Your task to perform on an android device: Go to ESPN.com Image 0: 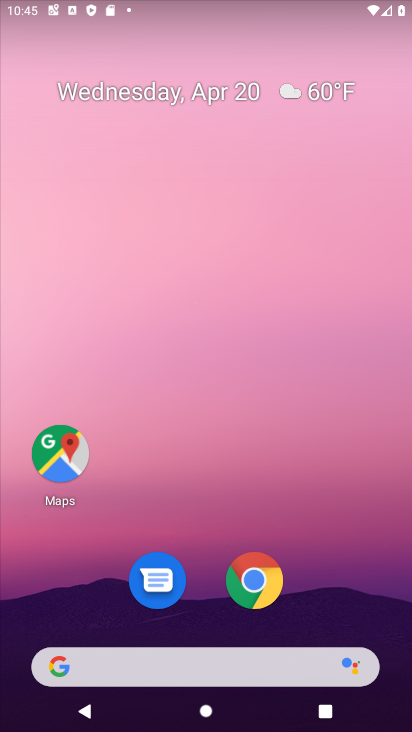
Step 0: click (396, 503)
Your task to perform on an android device: Go to ESPN.com Image 1: 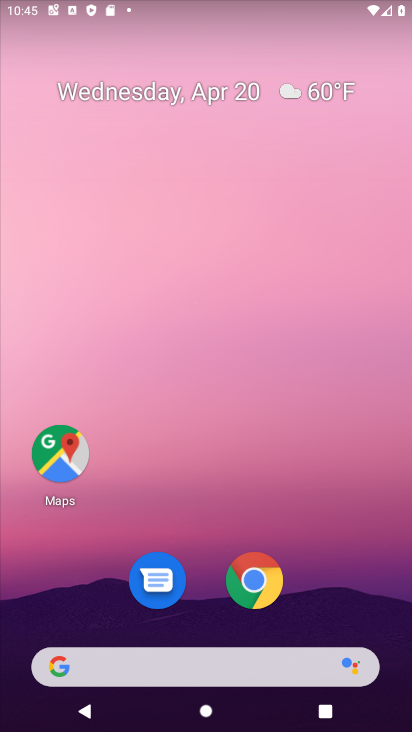
Step 1: click (266, 587)
Your task to perform on an android device: Go to ESPN.com Image 2: 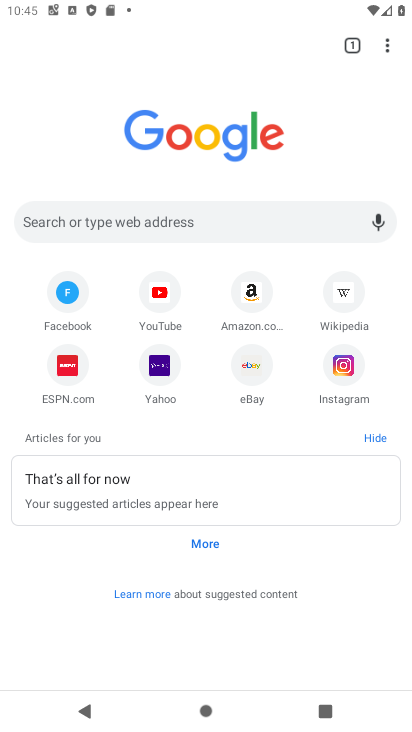
Step 2: click (72, 364)
Your task to perform on an android device: Go to ESPN.com Image 3: 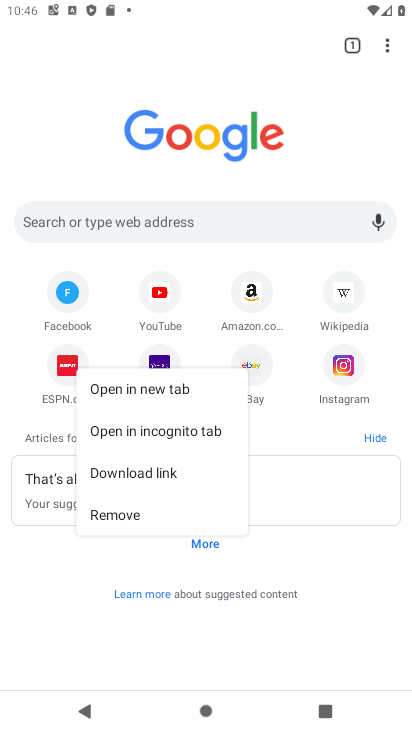
Step 3: click (63, 364)
Your task to perform on an android device: Go to ESPN.com Image 4: 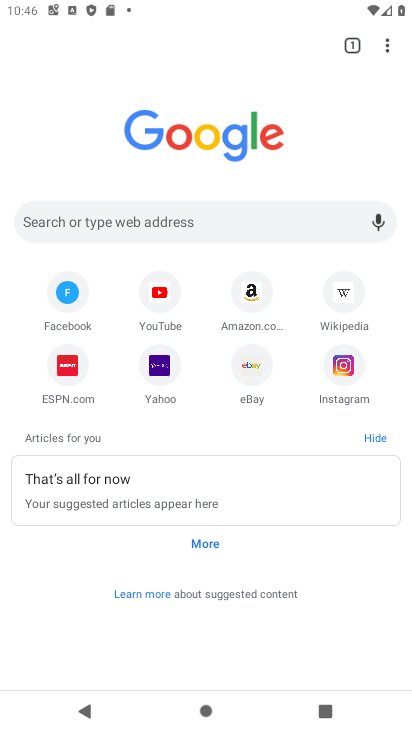
Step 4: task complete